Your task to perform on an android device: install app "Microsoft Outlook" Image 0: 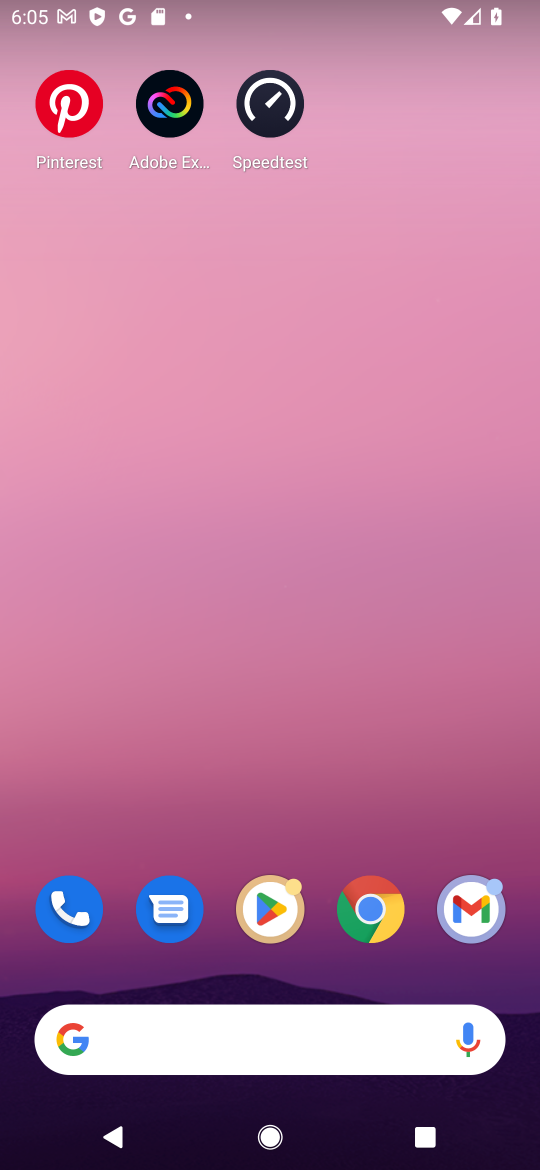
Step 0: click (275, 904)
Your task to perform on an android device: install app "Microsoft Outlook" Image 1: 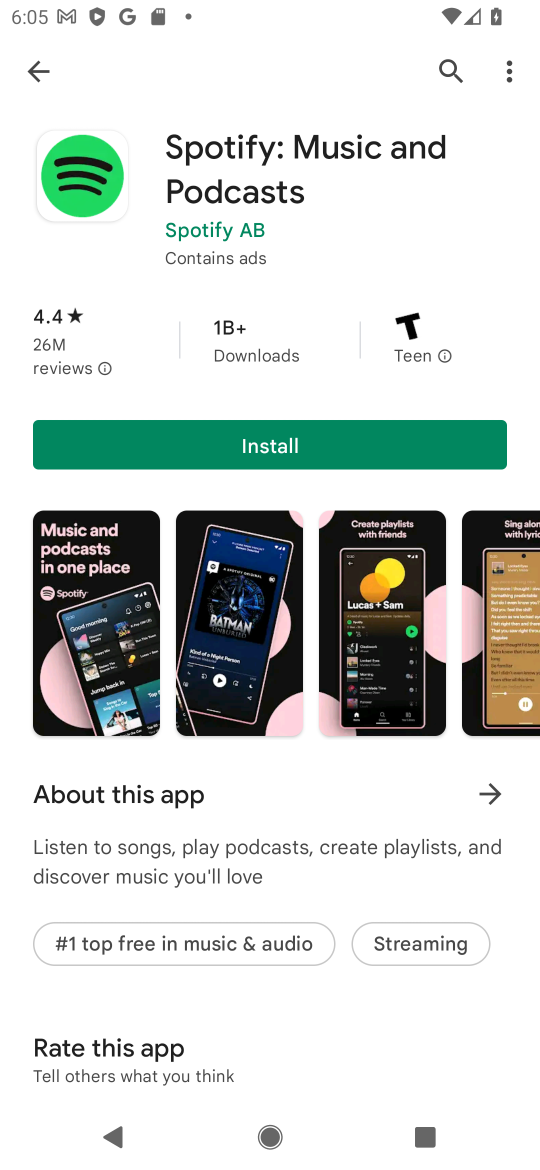
Step 1: click (54, 56)
Your task to perform on an android device: install app "Microsoft Outlook" Image 2: 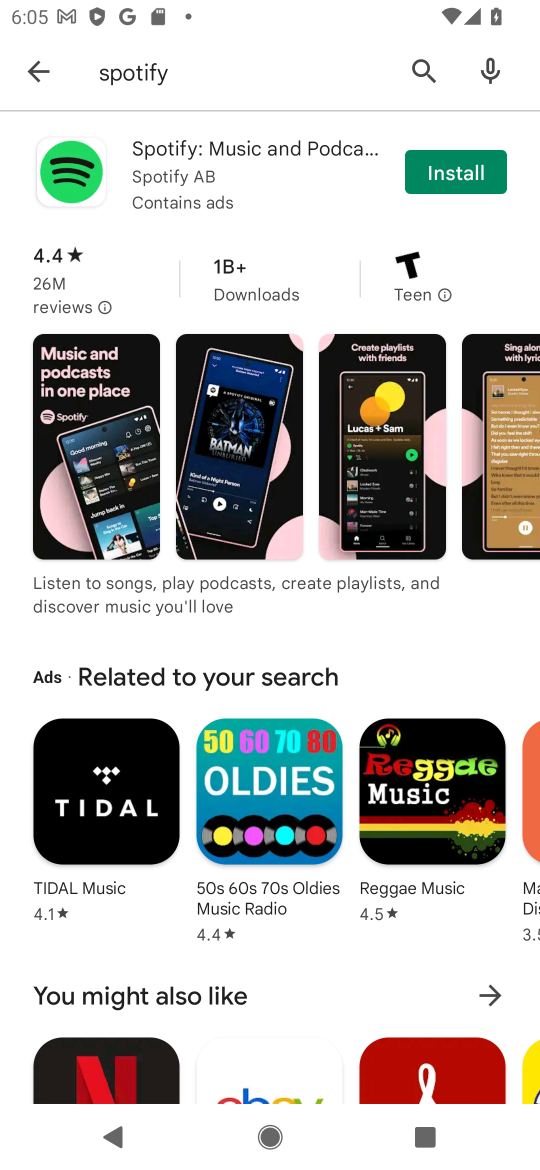
Step 2: click (419, 77)
Your task to perform on an android device: install app "Microsoft Outlook" Image 3: 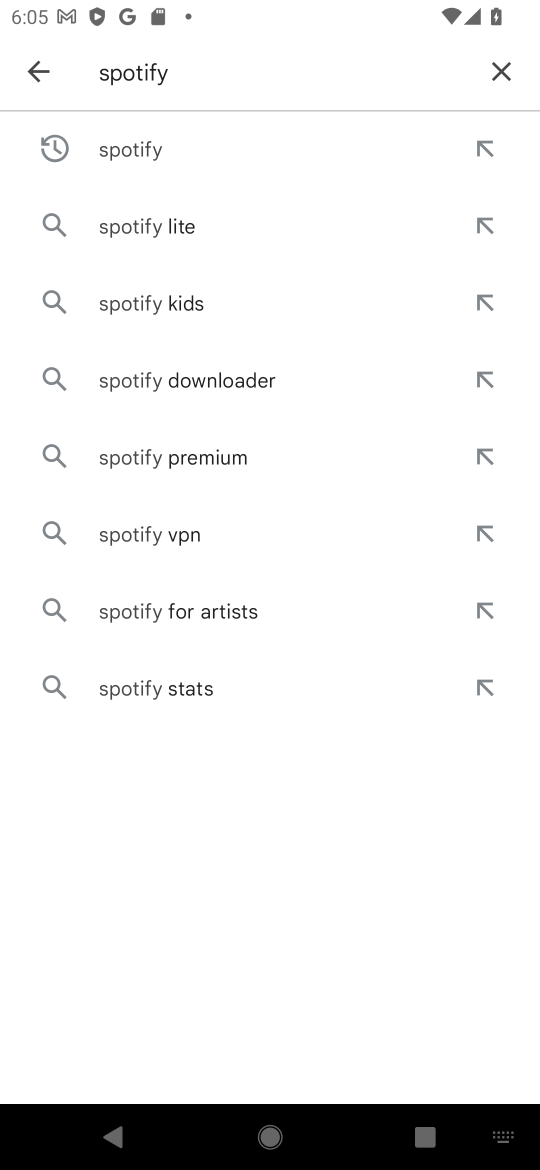
Step 3: click (511, 78)
Your task to perform on an android device: install app "Microsoft Outlook" Image 4: 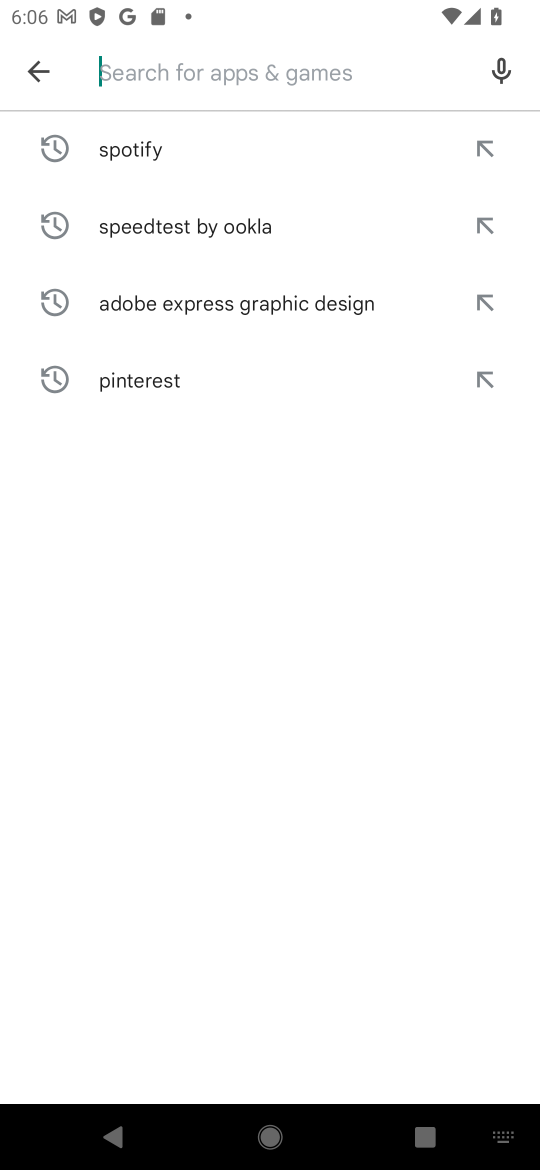
Step 4: type "microsoft outlook"
Your task to perform on an android device: install app "Microsoft Outlook" Image 5: 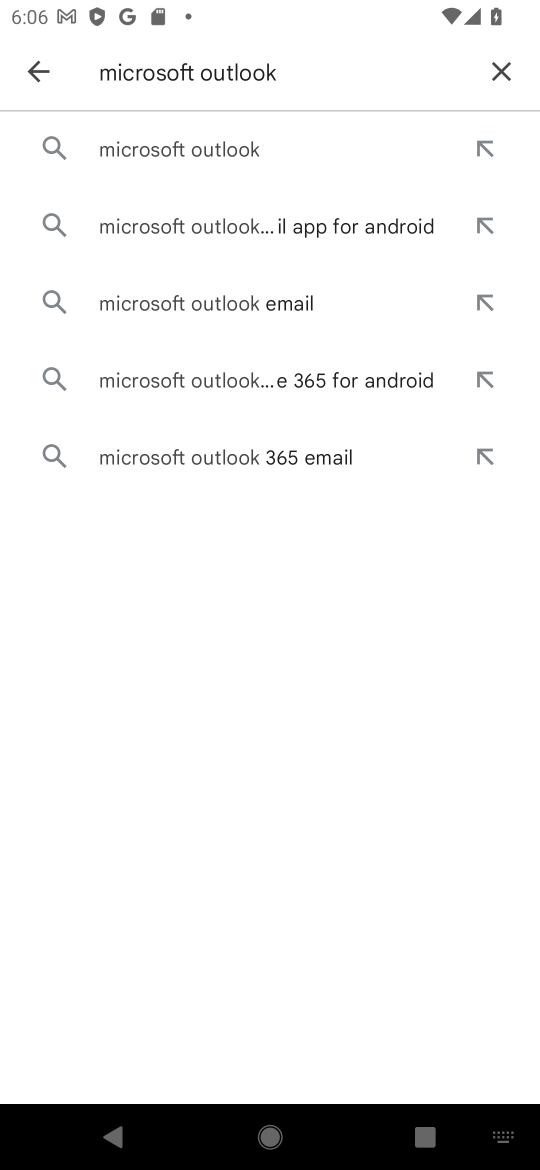
Step 5: click (345, 140)
Your task to perform on an android device: install app "Microsoft Outlook" Image 6: 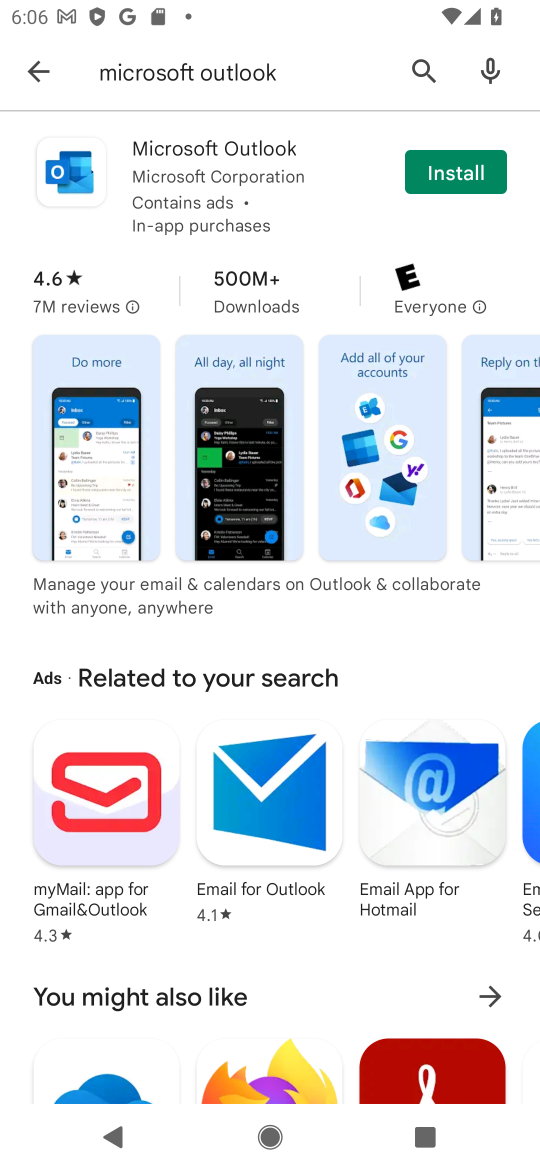
Step 6: click (473, 175)
Your task to perform on an android device: install app "Microsoft Outlook" Image 7: 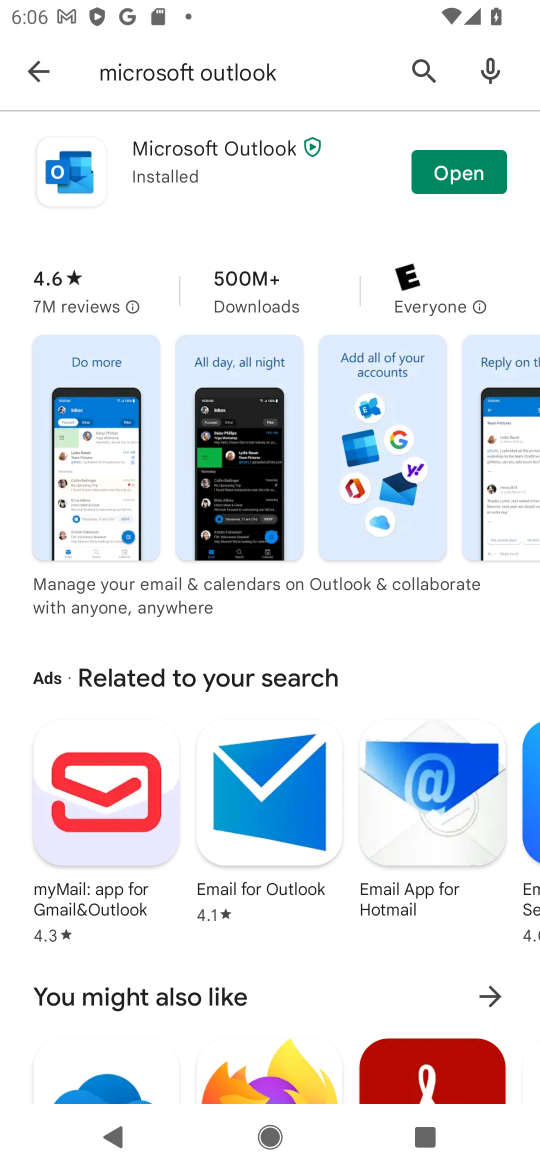
Step 7: task complete